Your task to perform on an android device: Go to CNN.com Image 0: 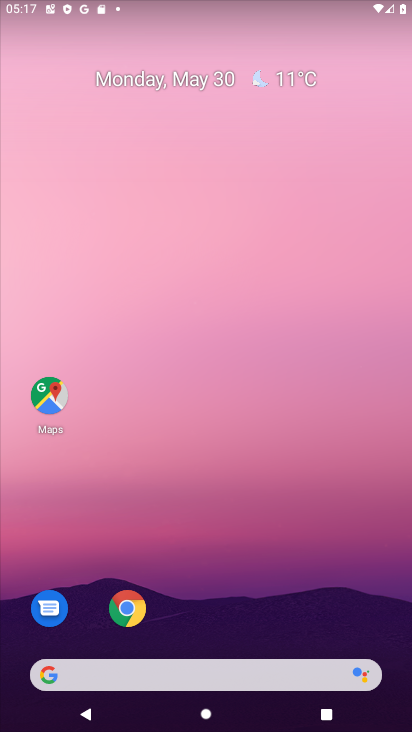
Step 0: drag from (162, 650) to (196, 287)
Your task to perform on an android device: Go to CNN.com Image 1: 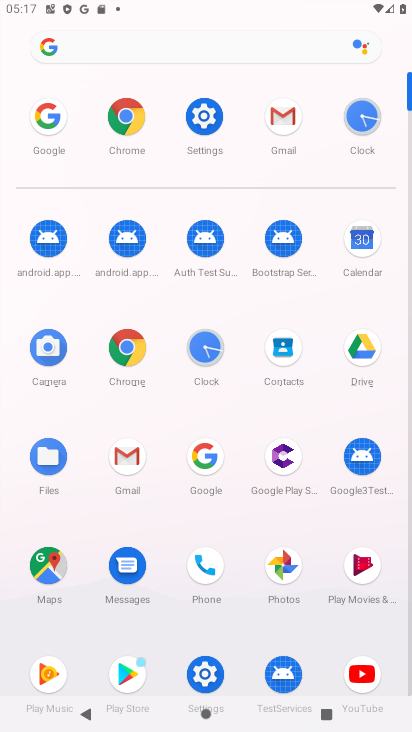
Step 1: click (197, 451)
Your task to perform on an android device: Go to CNN.com Image 2: 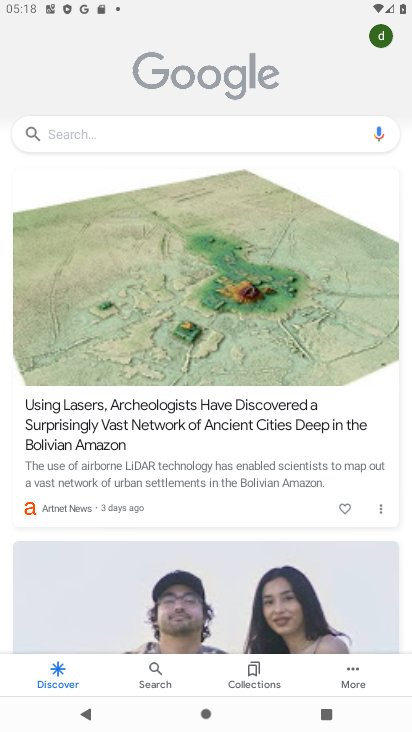
Step 2: click (149, 131)
Your task to perform on an android device: Go to CNN.com Image 3: 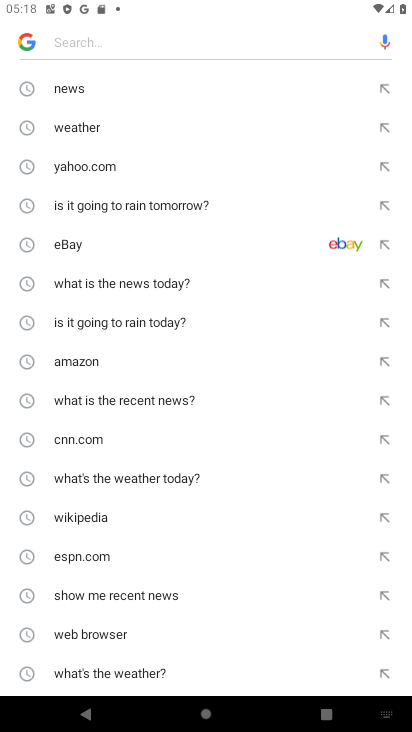
Step 3: drag from (94, 638) to (155, 173)
Your task to perform on an android device: Go to CNN.com Image 4: 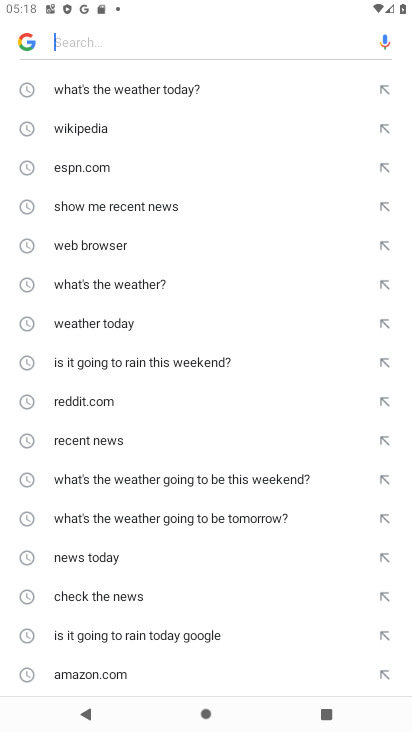
Step 4: drag from (79, 627) to (139, 233)
Your task to perform on an android device: Go to CNN.com Image 5: 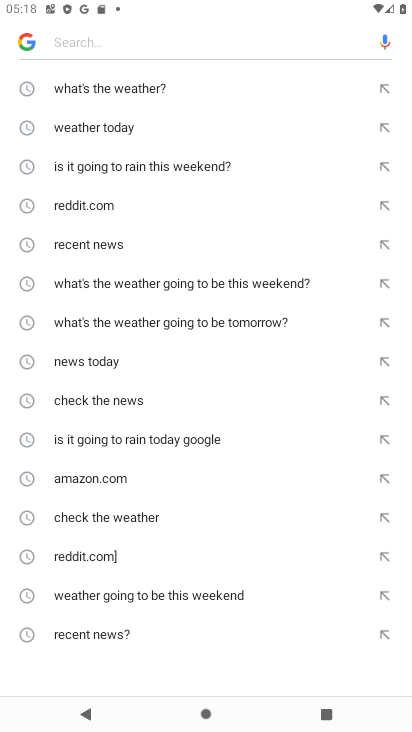
Step 5: drag from (153, 106) to (93, 615)
Your task to perform on an android device: Go to CNN.com Image 6: 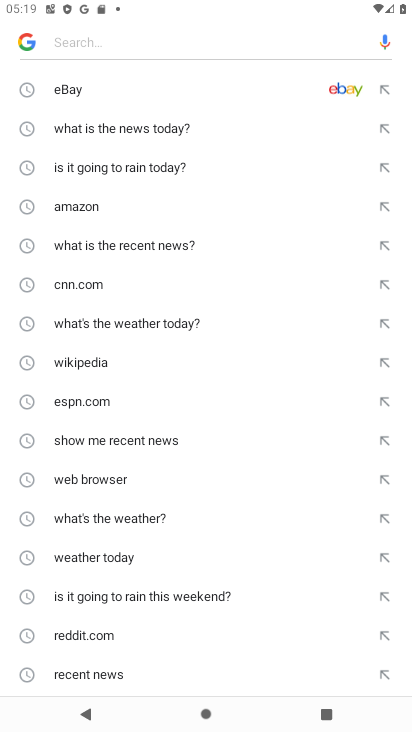
Step 6: click (64, 289)
Your task to perform on an android device: Go to CNN.com Image 7: 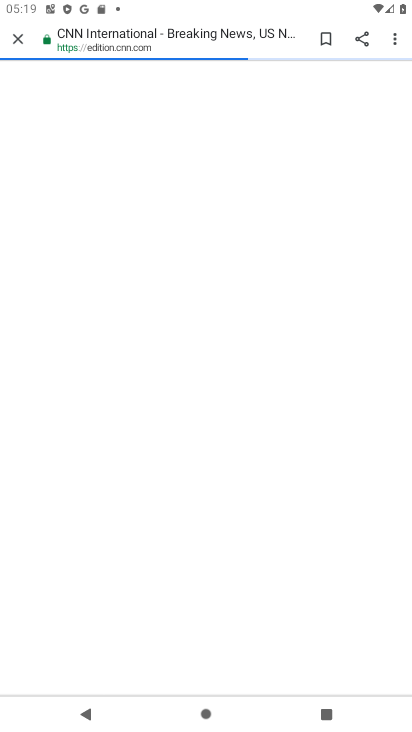
Step 7: task complete